Your task to perform on an android device: Look up the best selling patio furniture on Home Depot Image 0: 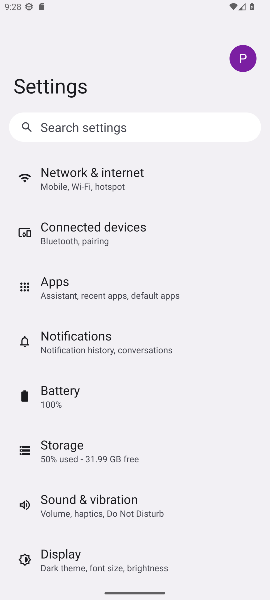
Step 0: press home button
Your task to perform on an android device: Look up the best selling patio furniture on Home Depot Image 1: 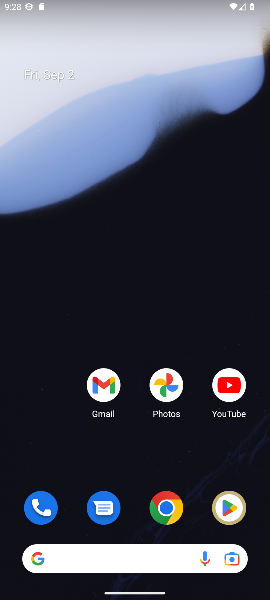
Step 1: click (168, 511)
Your task to perform on an android device: Look up the best selling patio furniture on Home Depot Image 2: 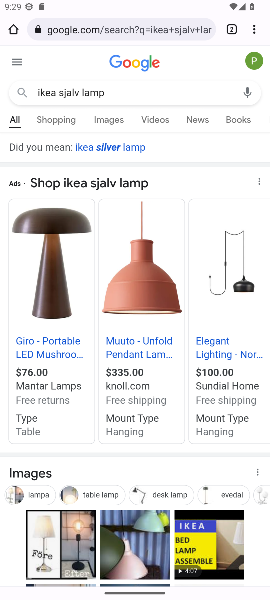
Step 2: click (118, 29)
Your task to perform on an android device: Look up the best selling patio furniture on Home Depot Image 3: 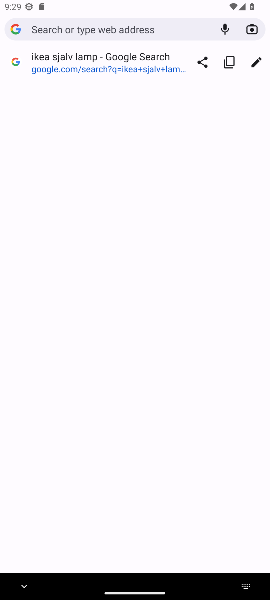
Step 3: type "Home Depot"
Your task to perform on an android device: Look up the best selling patio furniture on Home Depot Image 4: 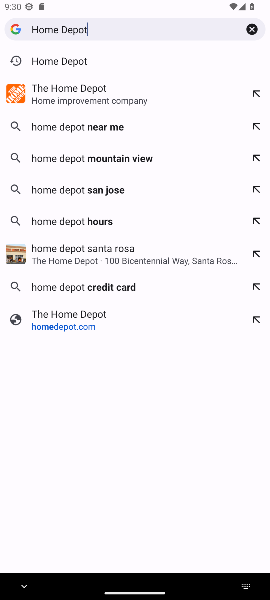
Step 4: click (49, 61)
Your task to perform on an android device: Look up the best selling patio furniture on Home Depot Image 5: 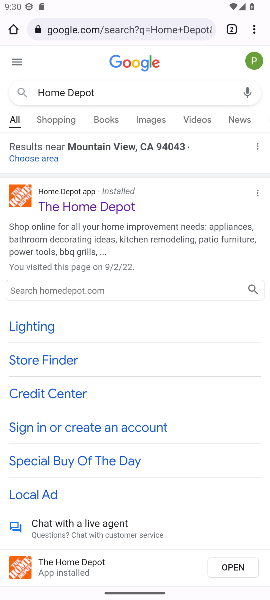
Step 5: click (63, 205)
Your task to perform on an android device: Look up the best selling patio furniture on Home Depot Image 6: 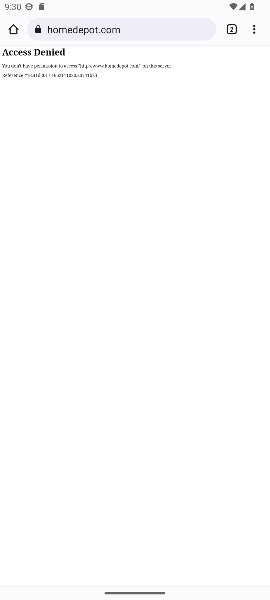
Step 6: task complete